Your task to perform on an android device: When is my next appointment? Image 0: 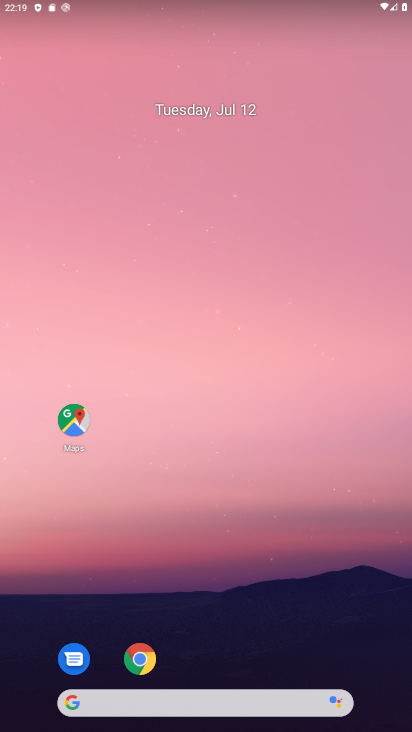
Step 0: drag from (240, 648) to (236, 226)
Your task to perform on an android device: When is my next appointment? Image 1: 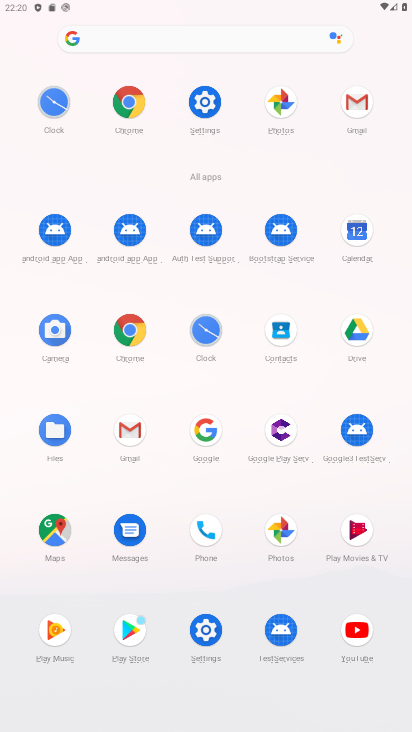
Step 1: click (342, 220)
Your task to perform on an android device: When is my next appointment? Image 2: 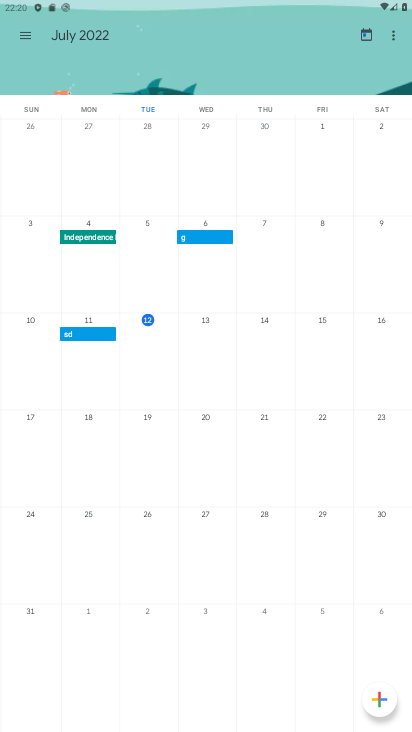
Step 2: click (277, 338)
Your task to perform on an android device: When is my next appointment? Image 3: 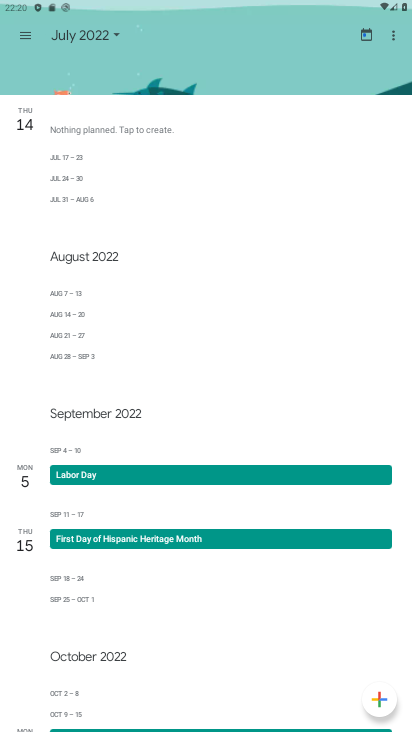
Step 3: task complete